Your task to perform on an android device: choose inbox layout in the gmail app Image 0: 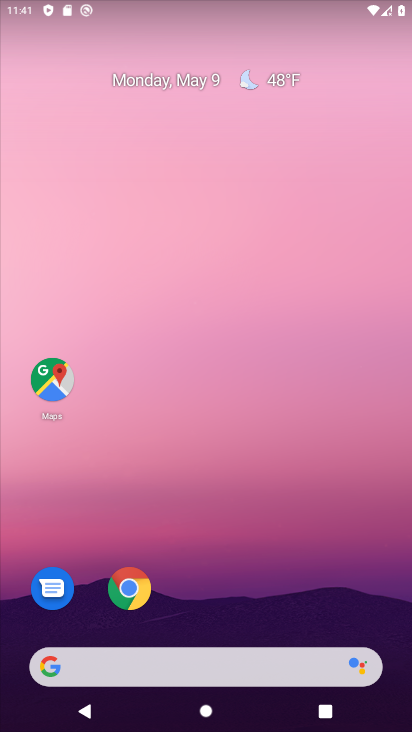
Step 0: click (248, 607)
Your task to perform on an android device: choose inbox layout in the gmail app Image 1: 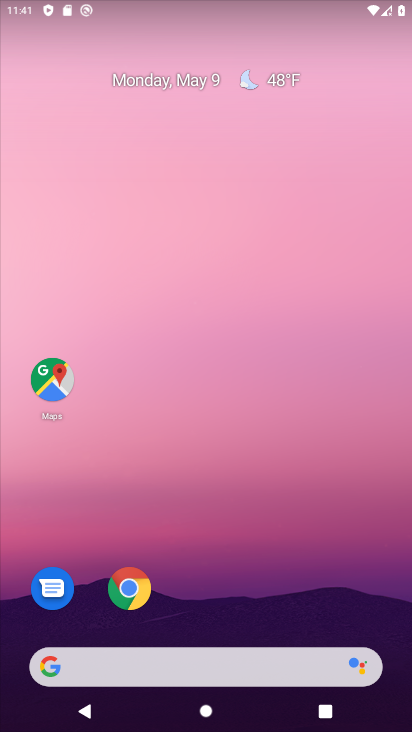
Step 1: drag from (248, 607) to (305, 240)
Your task to perform on an android device: choose inbox layout in the gmail app Image 2: 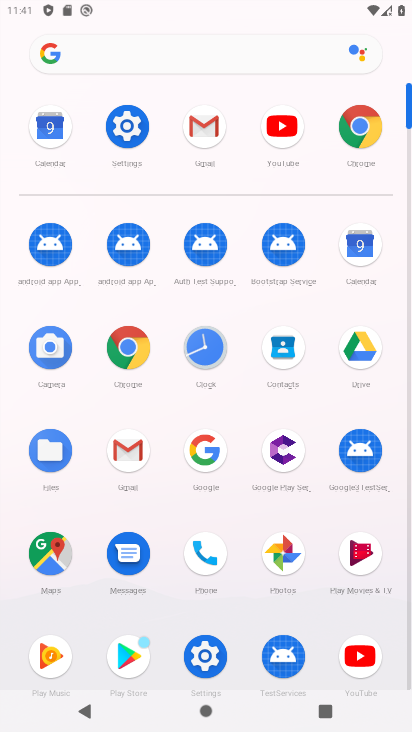
Step 2: click (127, 440)
Your task to perform on an android device: choose inbox layout in the gmail app Image 3: 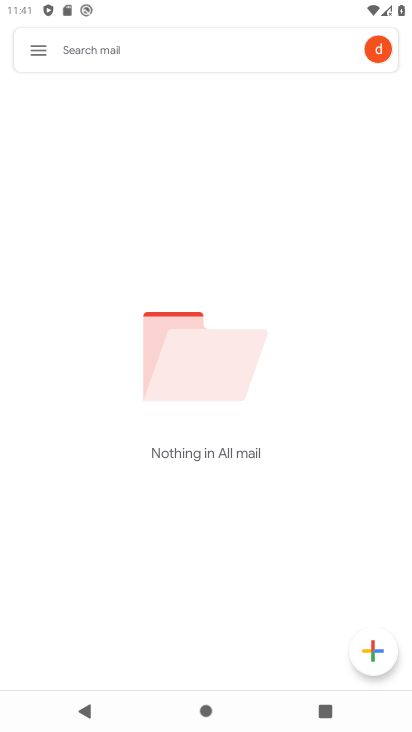
Step 3: click (38, 48)
Your task to perform on an android device: choose inbox layout in the gmail app Image 4: 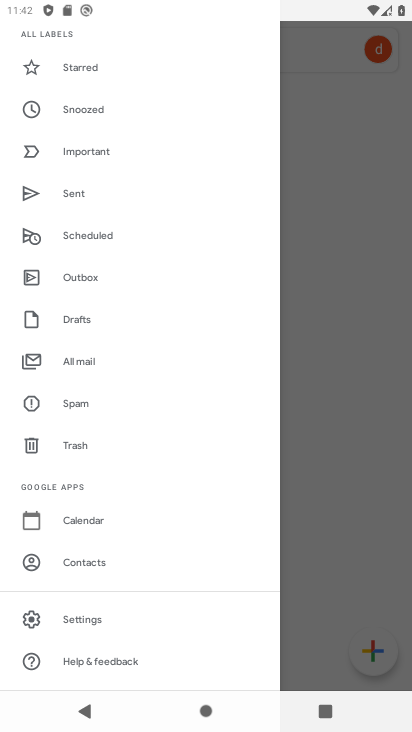
Step 4: click (122, 613)
Your task to perform on an android device: choose inbox layout in the gmail app Image 5: 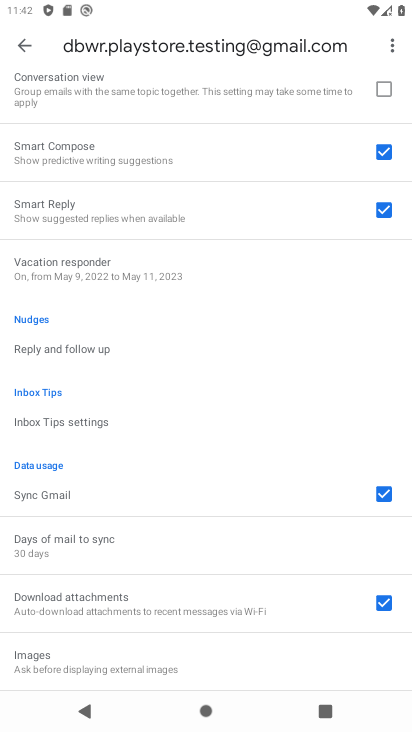
Step 5: drag from (136, 200) to (342, 699)
Your task to perform on an android device: choose inbox layout in the gmail app Image 6: 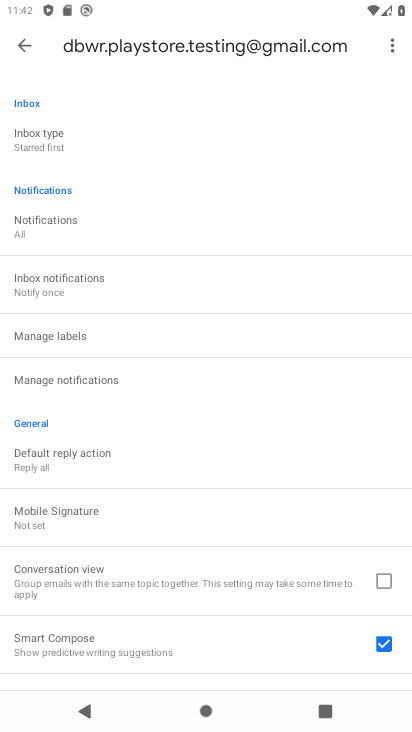
Step 6: click (185, 263)
Your task to perform on an android device: choose inbox layout in the gmail app Image 7: 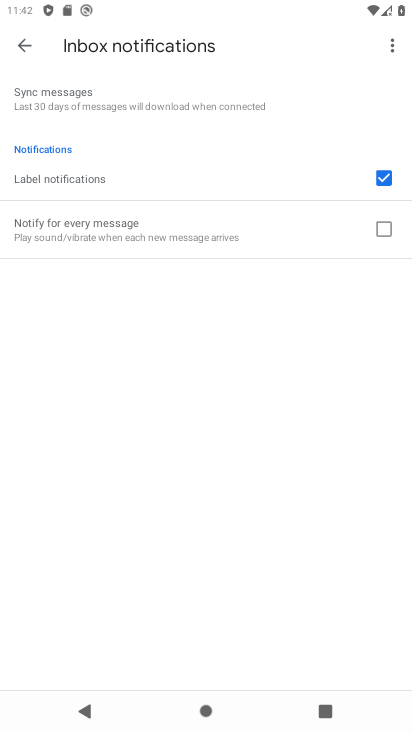
Step 7: click (21, 42)
Your task to perform on an android device: choose inbox layout in the gmail app Image 8: 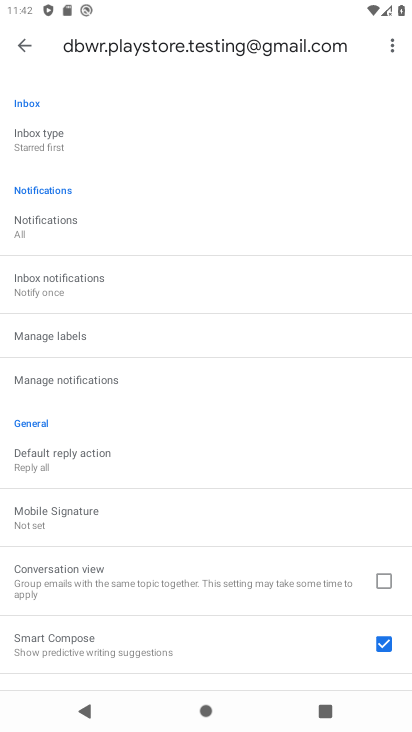
Step 8: click (60, 147)
Your task to perform on an android device: choose inbox layout in the gmail app Image 9: 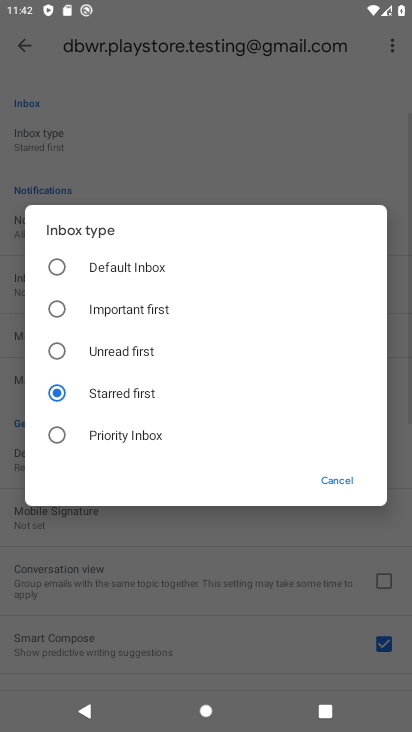
Step 9: click (95, 347)
Your task to perform on an android device: choose inbox layout in the gmail app Image 10: 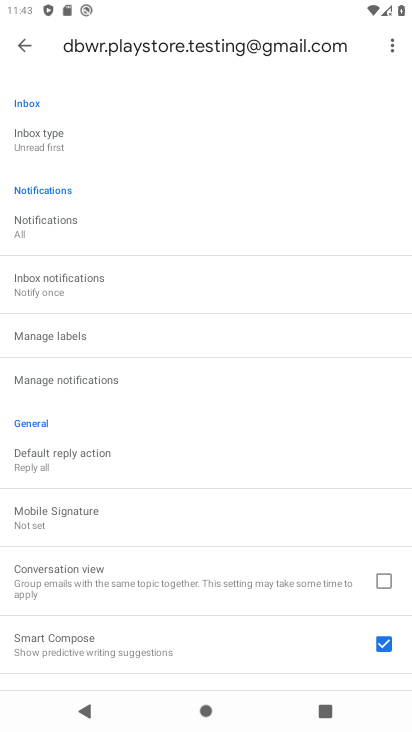
Step 10: task complete